Your task to perform on an android device: turn off data saver in the chrome app Image 0: 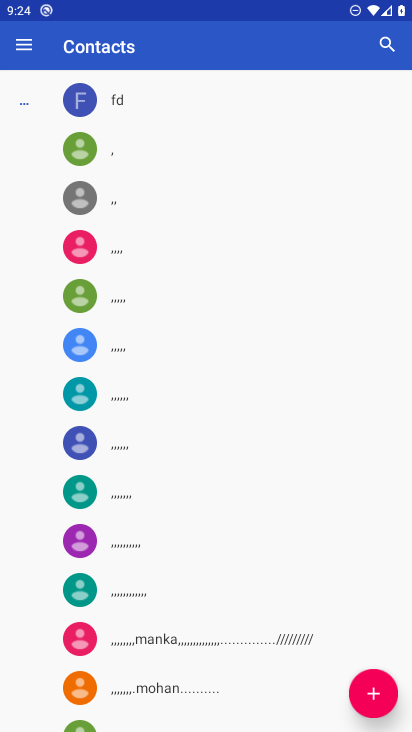
Step 0: press home button
Your task to perform on an android device: turn off data saver in the chrome app Image 1: 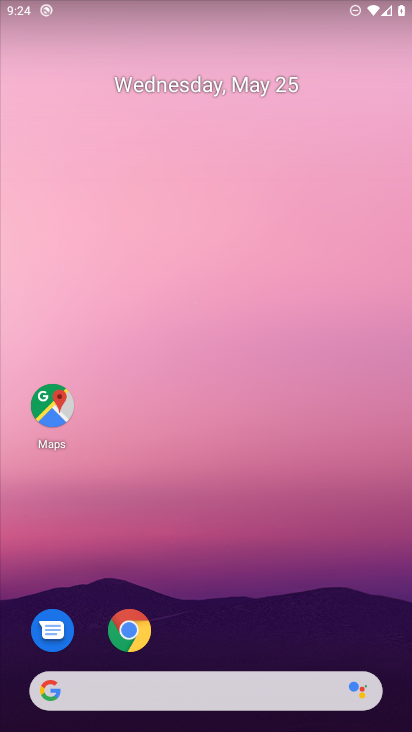
Step 1: click (128, 627)
Your task to perform on an android device: turn off data saver in the chrome app Image 2: 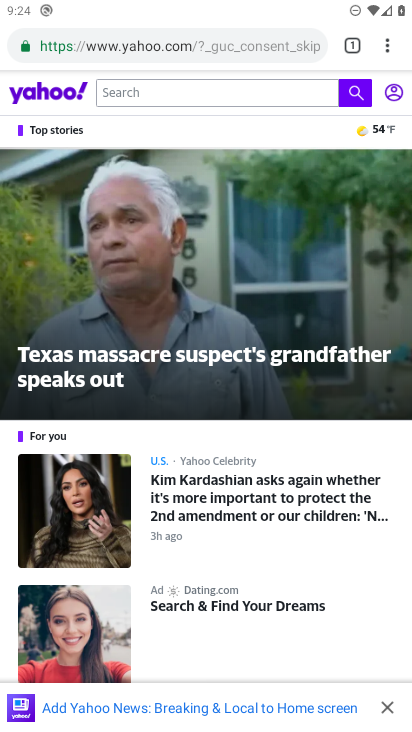
Step 2: click (388, 46)
Your task to perform on an android device: turn off data saver in the chrome app Image 3: 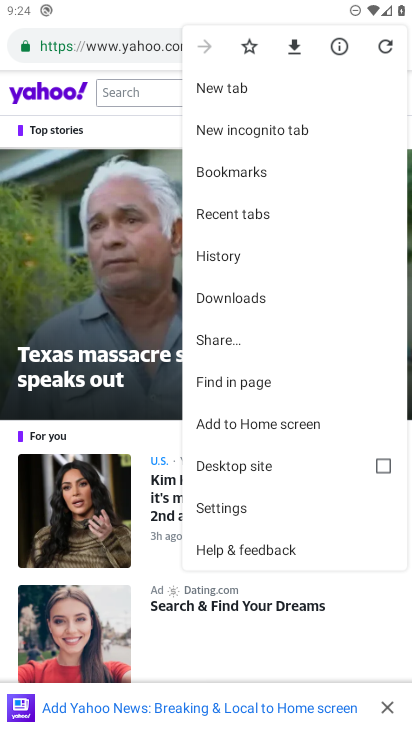
Step 3: click (231, 510)
Your task to perform on an android device: turn off data saver in the chrome app Image 4: 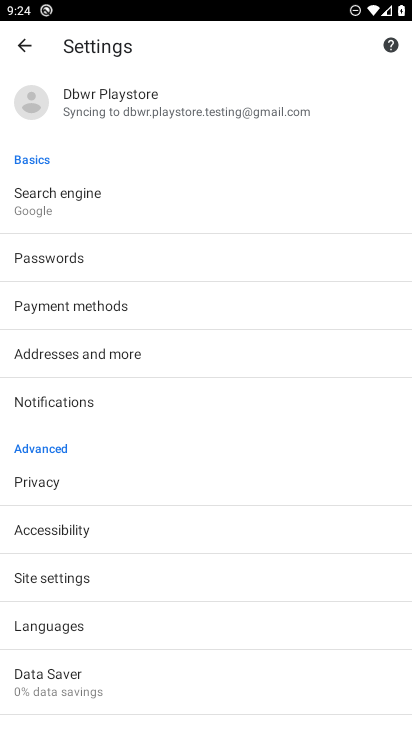
Step 4: click (54, 675)
Your task to perform on an android device: turn off data saver in the chrome app Image 5: 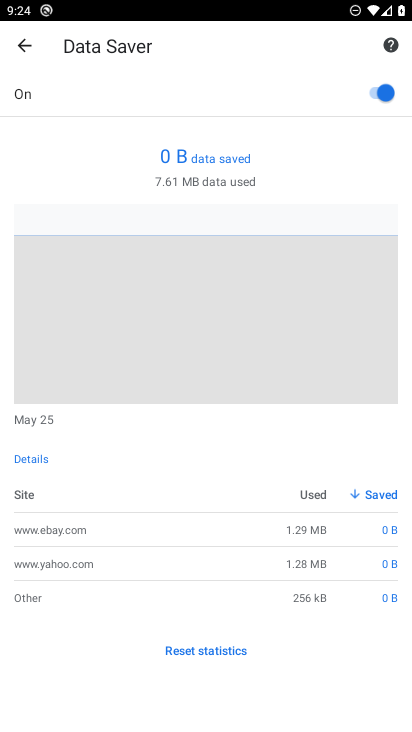
Step 5: click (375, 92)
Your task to perform on an android device: turn off data saver in the chrome app Image 6: 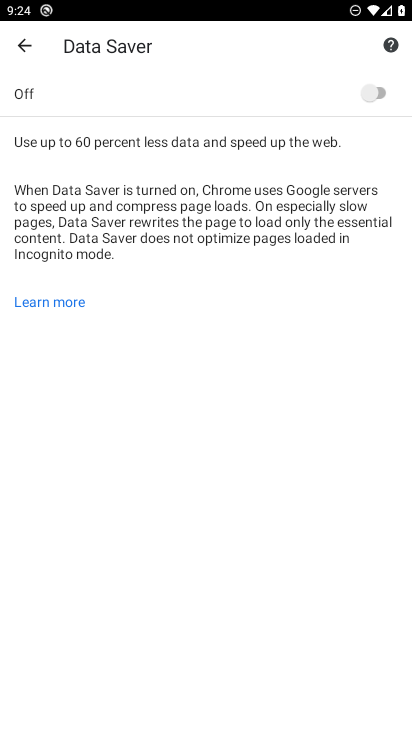
Step 6: task complete